Your task to perform on an android device: clear all cookies in the chrome app Image 0: 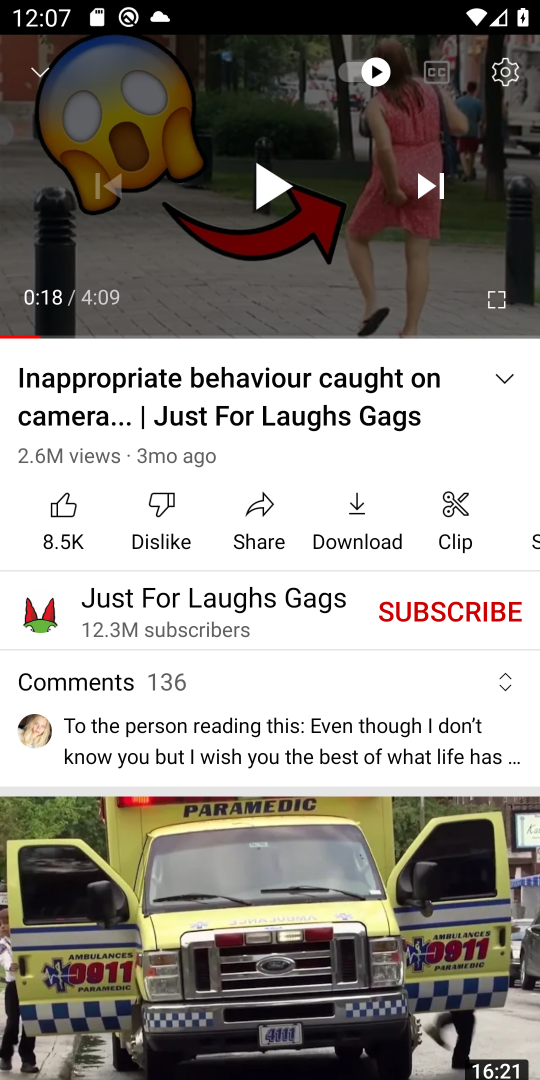
Step 0: press home button
Your task to perform on an android device: clear all cookies in the chrome app Image 1: 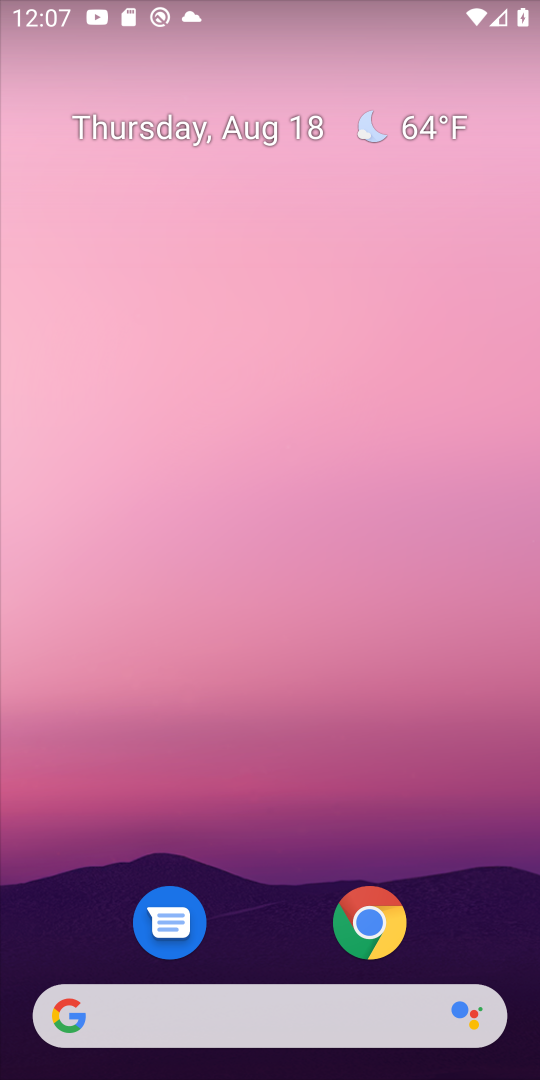
Step 1: click (366, 931)
Your task to perform on an android device: clear all cookies in the chrome app Image 2: 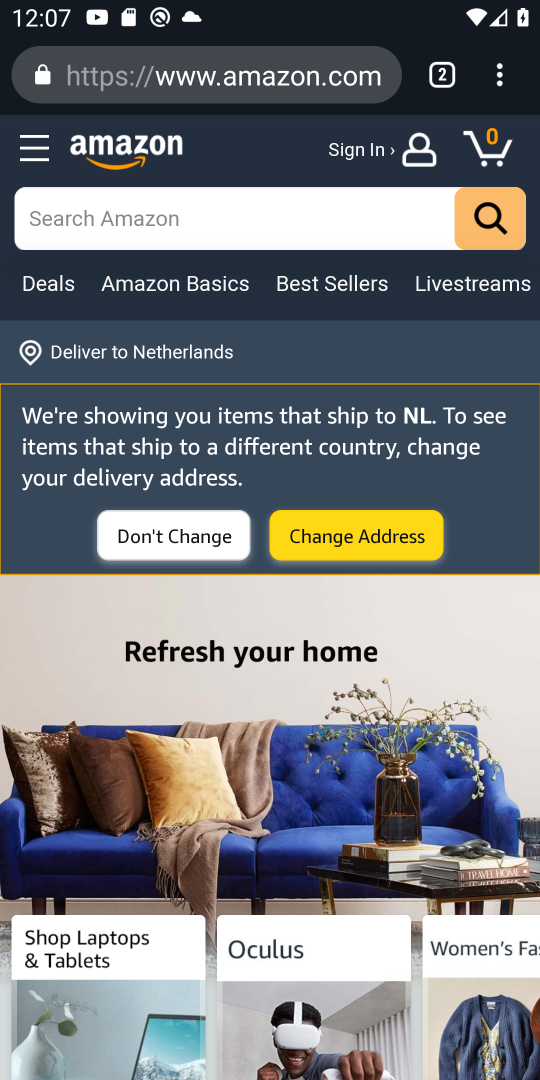
Step 2: click (509, 66)
Your task to perform on an android device: clear all cookies in the chrome app Image 3: 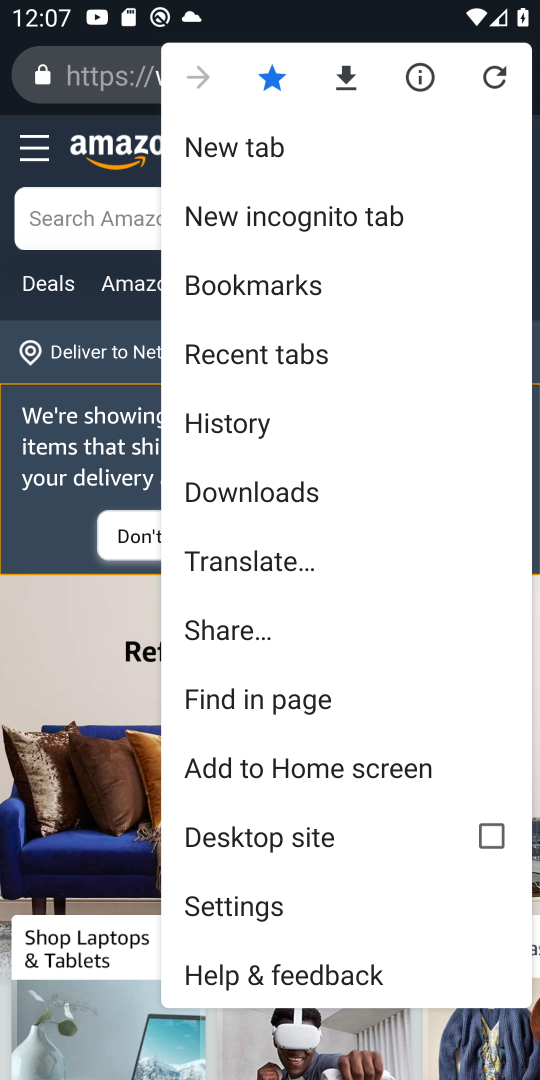
Step 3: click (221, 429)
Your task to perform on an android device: clear all cookies in the chrome app Image 4: 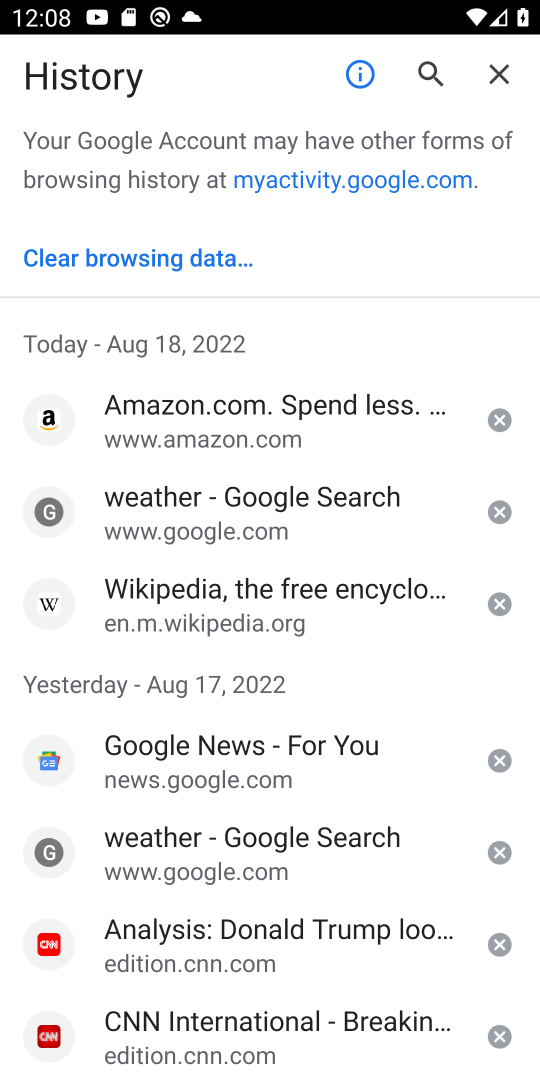
Step 4: click (140, 252)
Your task to perform on an android device: clear all cookies in the chrome app Image 5: 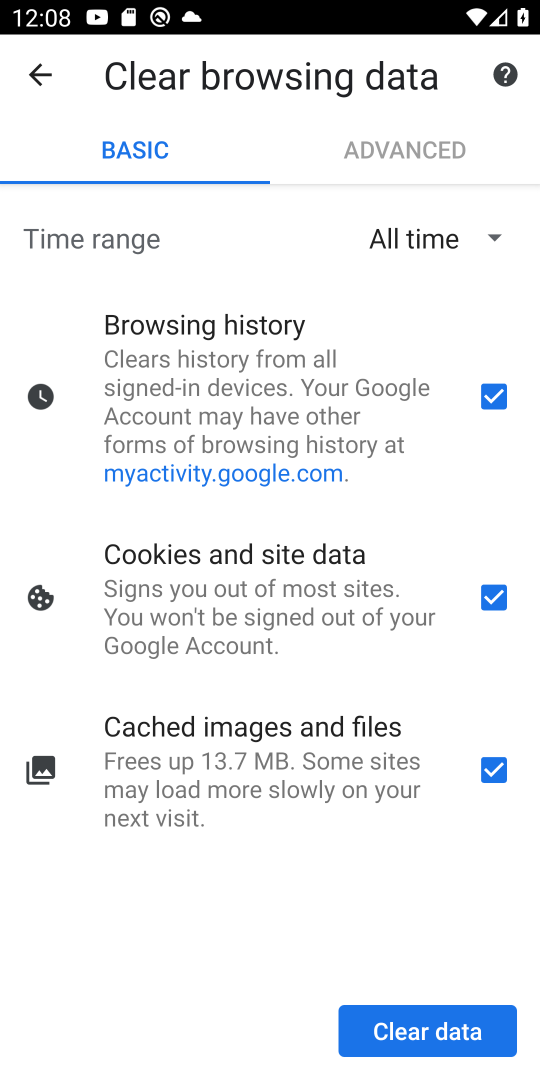
Step 5: click (482, 397)
Your task to perform on an android device: clear all cookies in the chrome app Image 6: 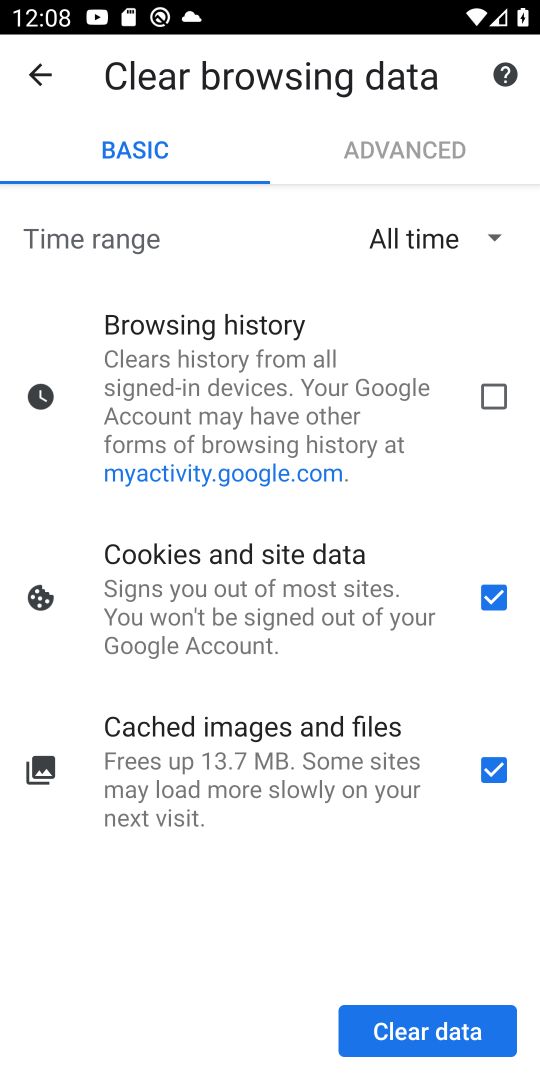
Step 6: click (491, 769)
Your task to perform on an android device: clear all cookies in the chrome app Image 7: 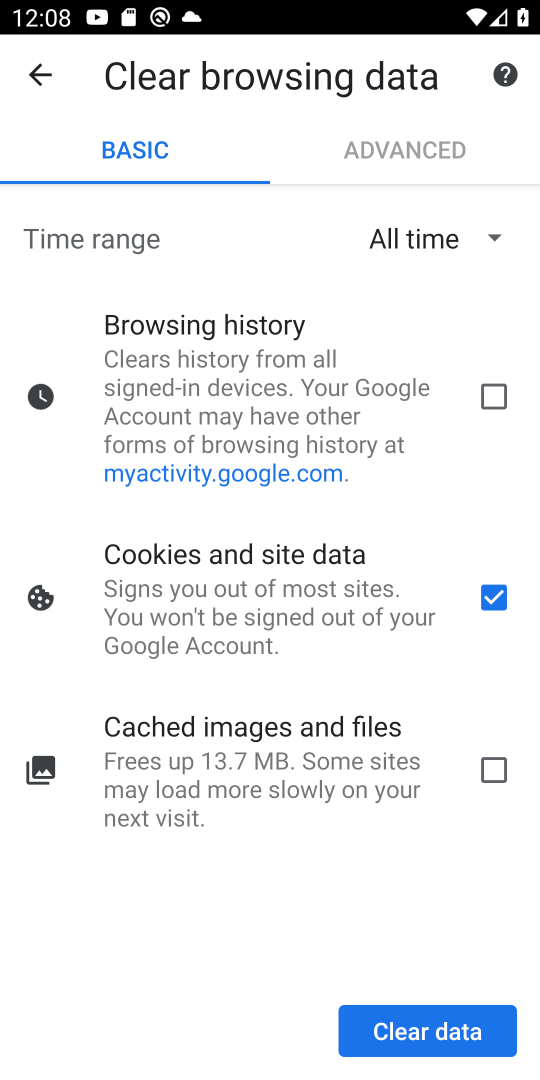
Step 7: click (430, 1022)
Your task to perform on an android device: clear all cookies in the chrome app Image 8: 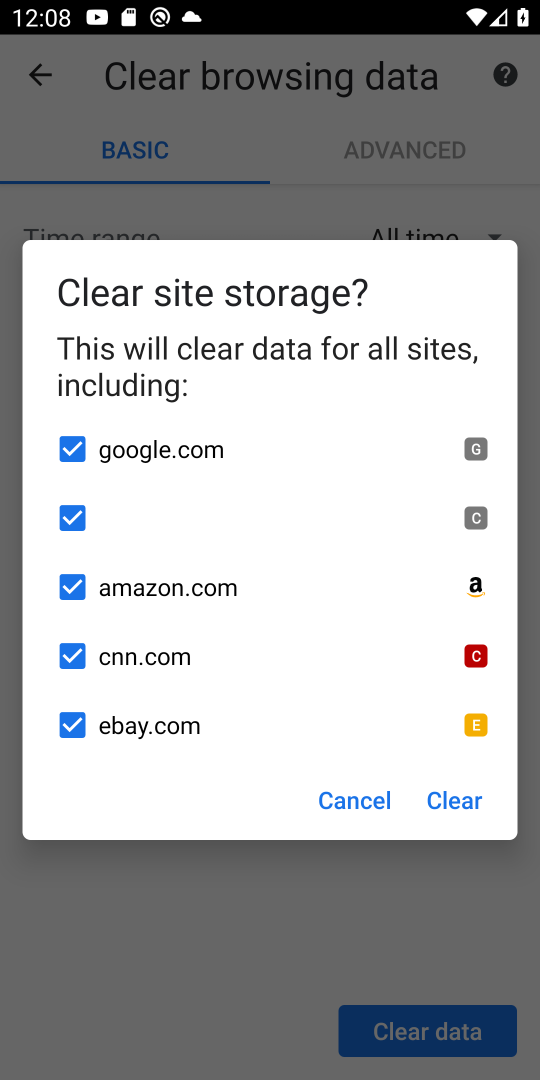
Step 8: click (464, 798)
Your task to perform on an android device: clear all cookies in the chrome app Image 9: 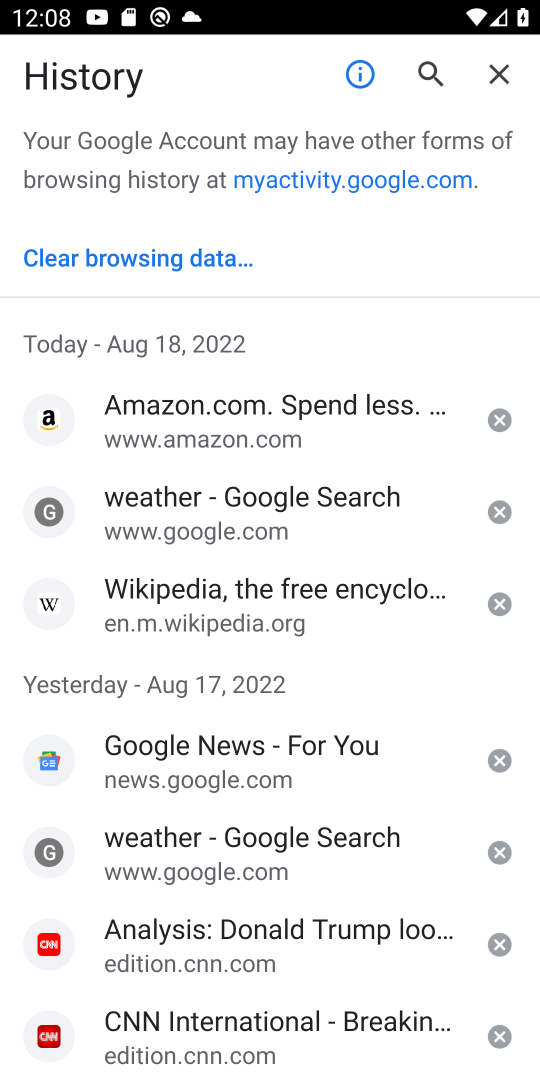
Step 9: task complete